Your task to perform on an android device: change the clock display to analog Image 0: 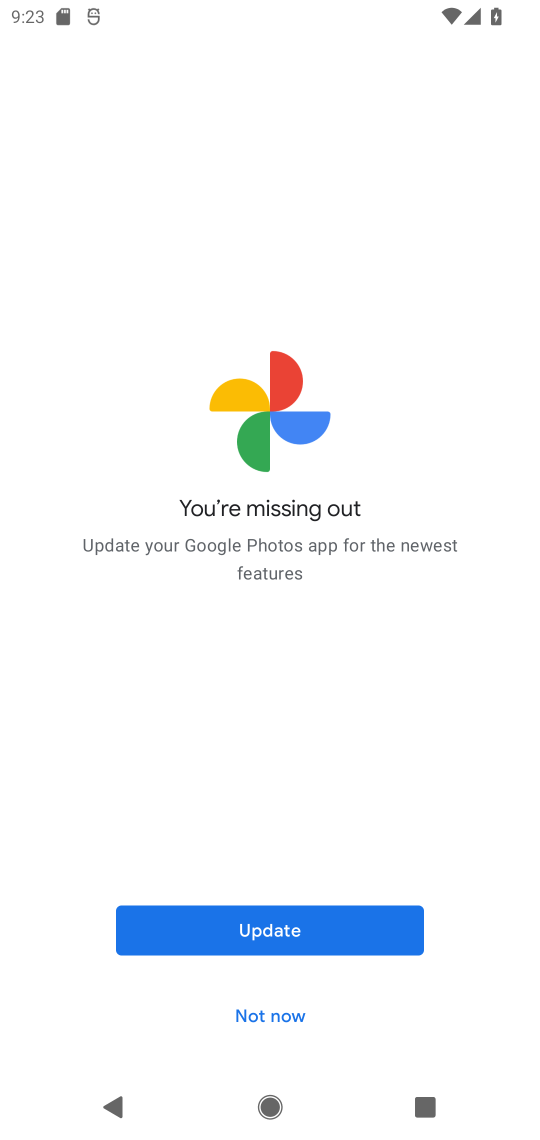
Step 0: press home button
Your task to perform on an android device: change the clock display to analog Image 1: 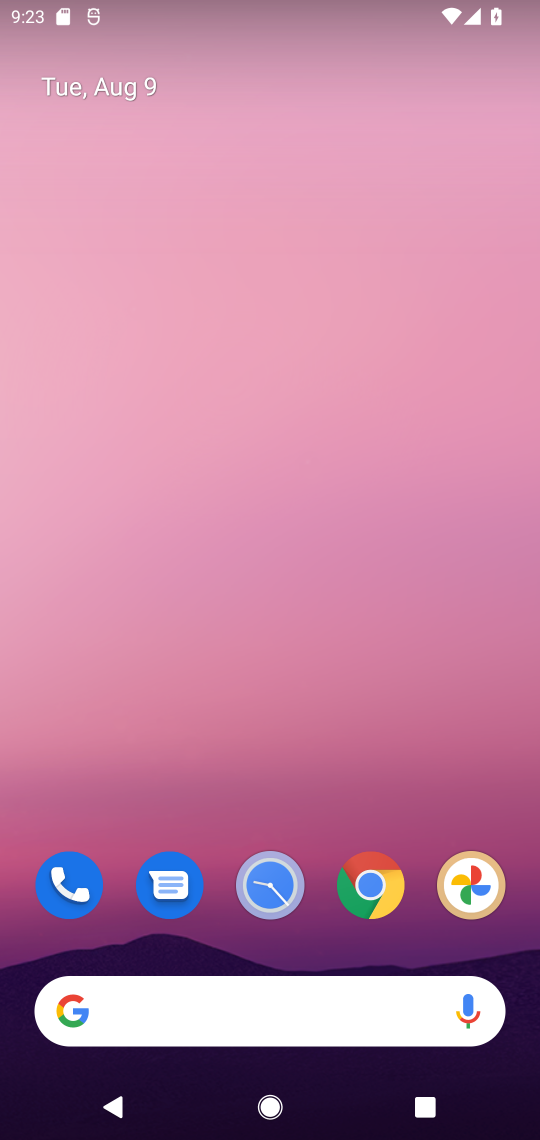
Step 1: drag from (300, 991) to (424, 178)
Your task to perform on an android device: change the clock display to analog Image 2: 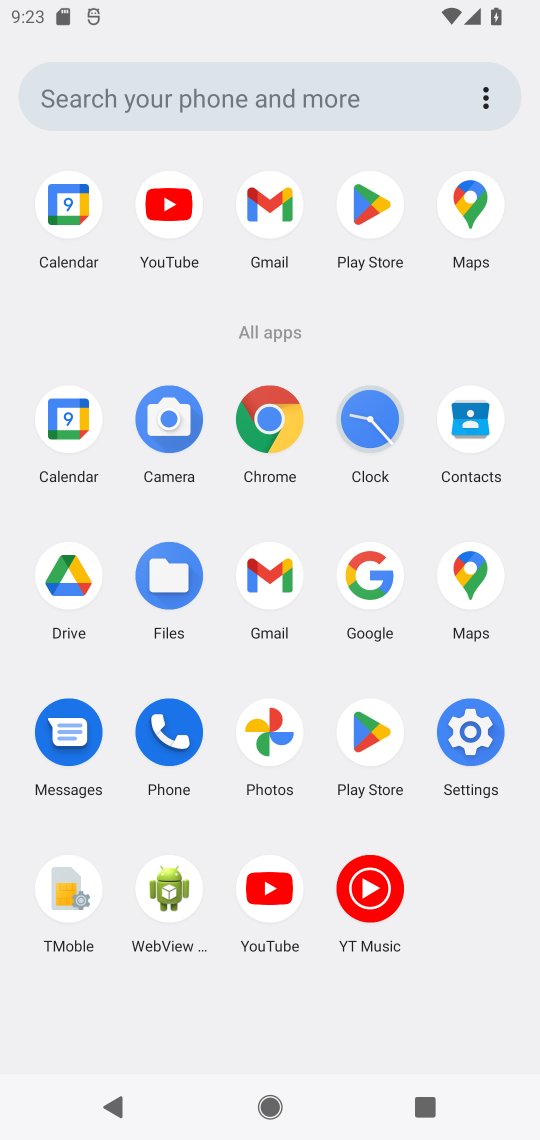
Step 2: click (364, 411)
Your task to perform on an android device: change the clock display to analog Image 3: 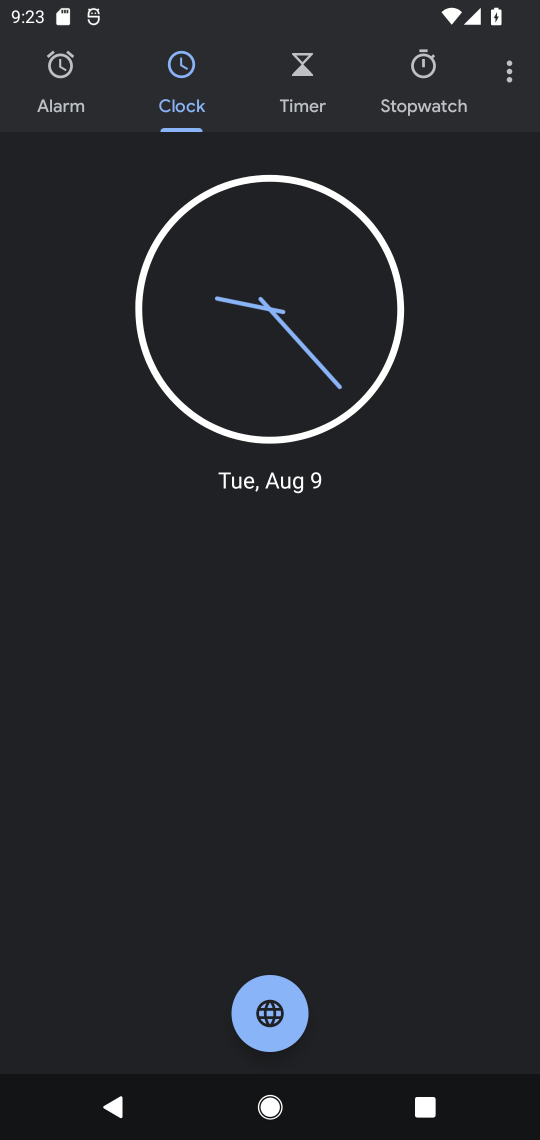
Step 3: click (507, 79)
Your task to perform on an android device: change the clock display to analog Image 4: 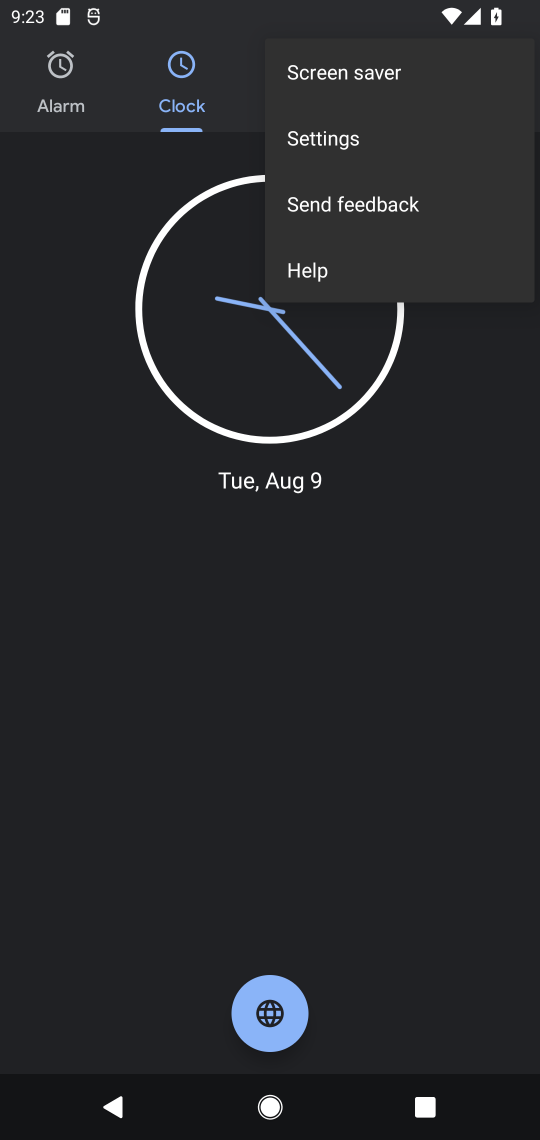
Step 4: click (367, 139)
Your task to perform on an android device: change the clock display to analog Image 5: 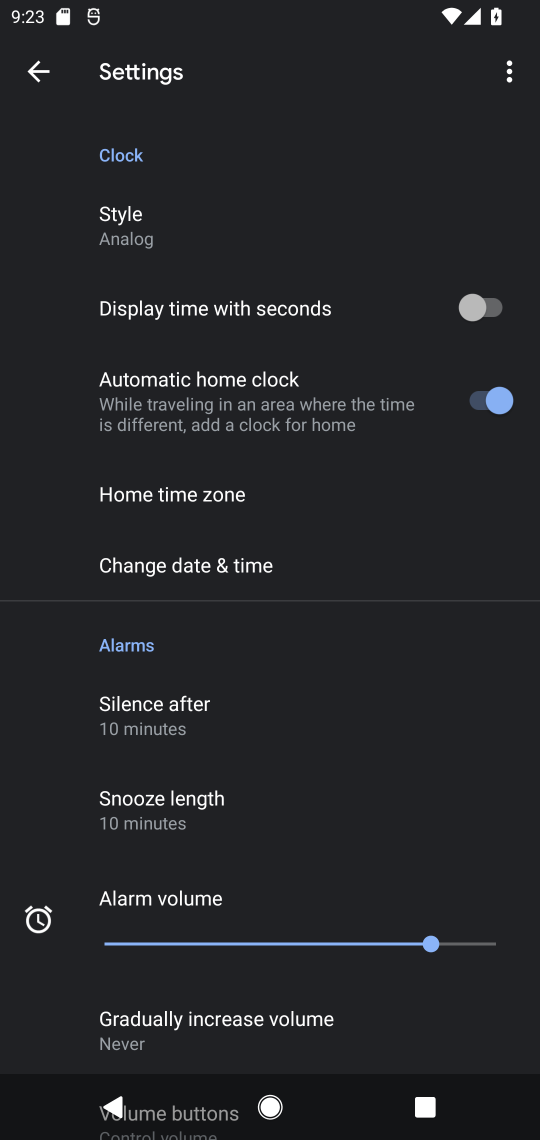
Step 5: click (201, 210)
Your task to perform on an android device: change the clock display to analog Image 6: 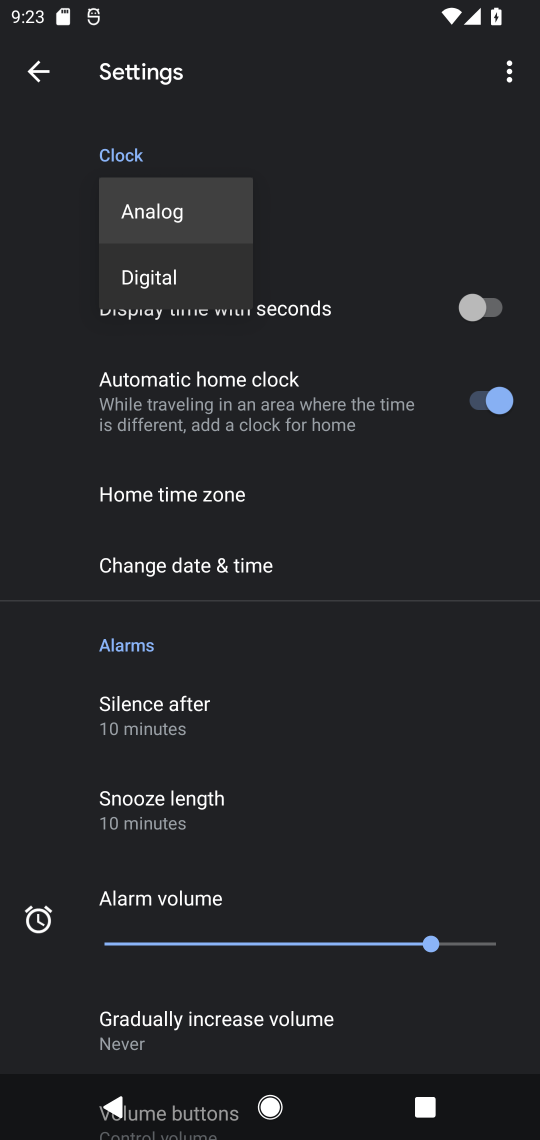
Step 6: click (167, 241)
Your task to perform on an android device: change the clock display to analog Image 7: 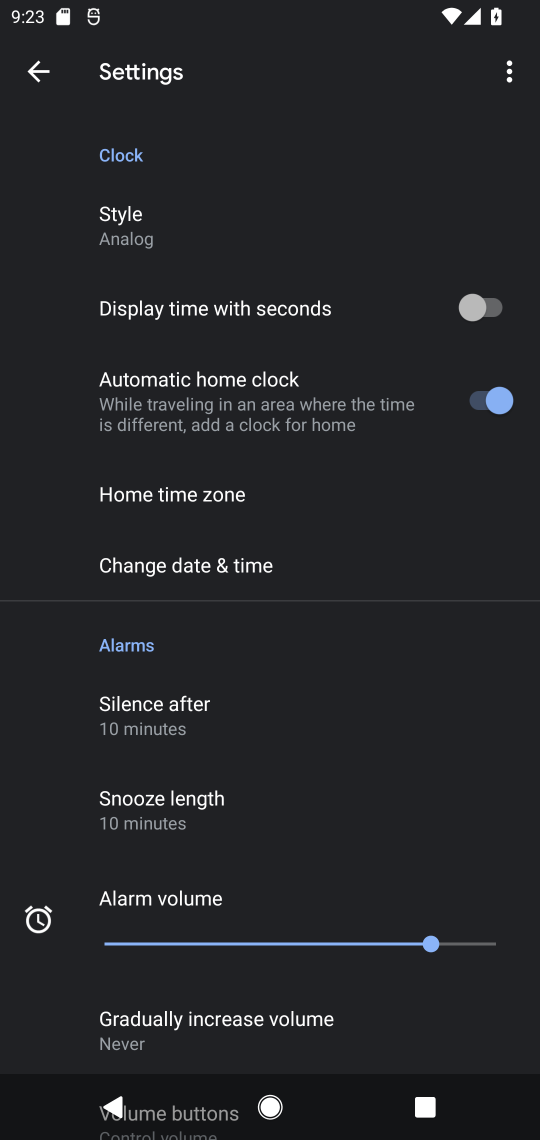
Step 7: task complete